Your task to perform on an android device: change timer sound Image 0: 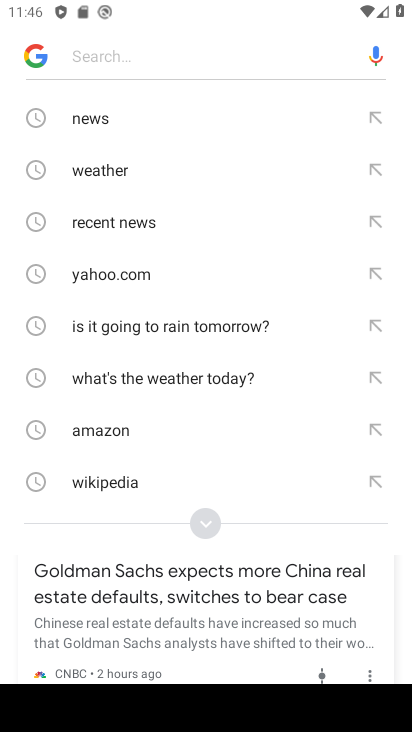
Step 0: press back button
Your task to perform on an android device: change timer sound Image 1: 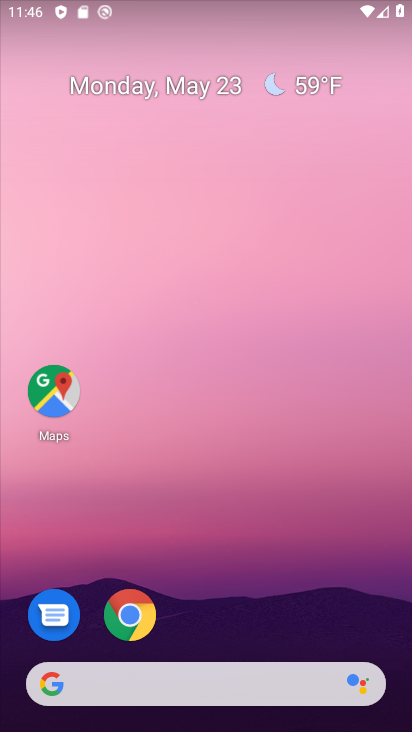
Step 1: drag from (205, 547) to (183, 21)
Your task to perform on an android device: change timer sound Image 2: 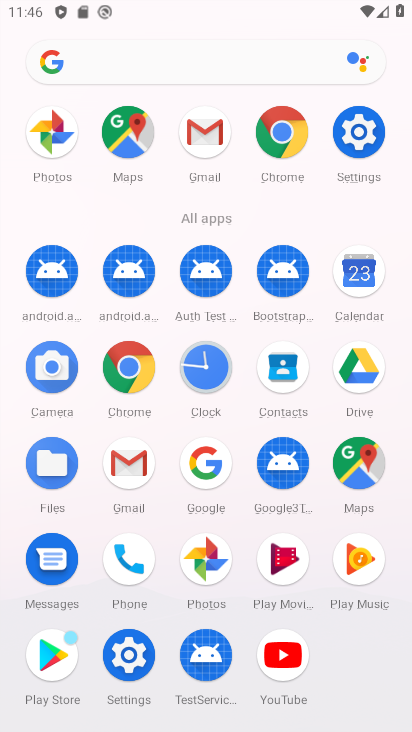
Step 2: drag from (8, 566) to (20, 221)
Your task to perform on an android device: change timer sound Image 3: 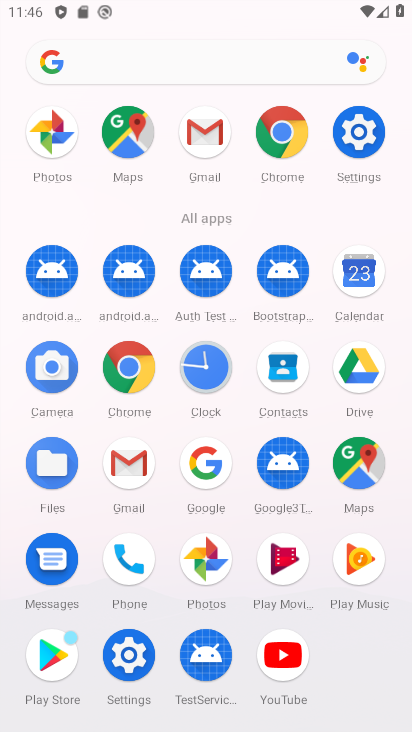
Step 3: click (205, 363)
Your task to perform on an android device: change timer sound Image 4: 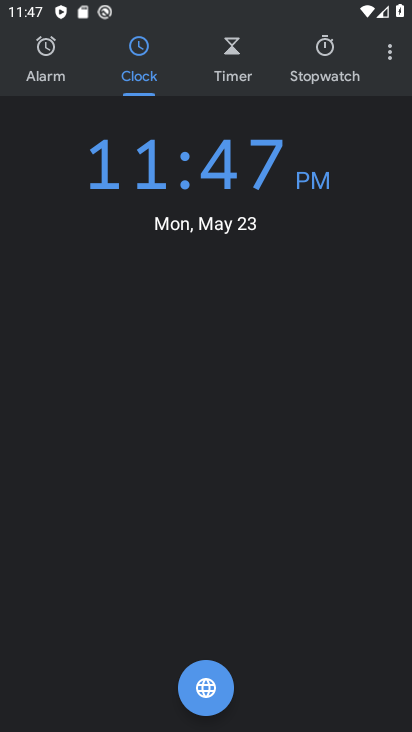
Step 4: drag from (389, 54) to (330, 112)
Your task to perform on an android device: change timer sound Image 5: 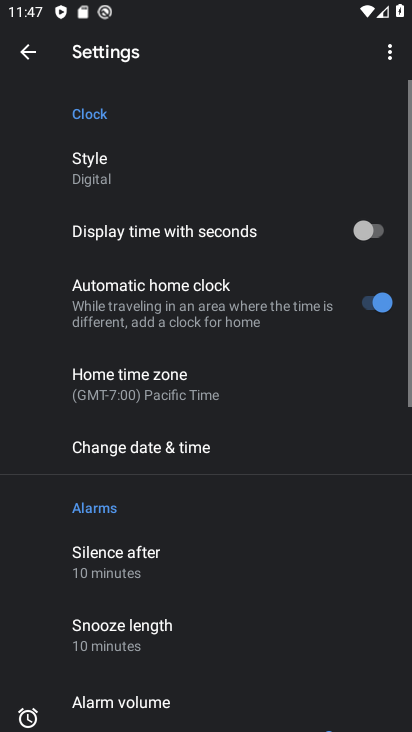
Step 5: drag from (196, 510) to (214, 147)
Your task to perform on an android device: change timer sound Image 6: 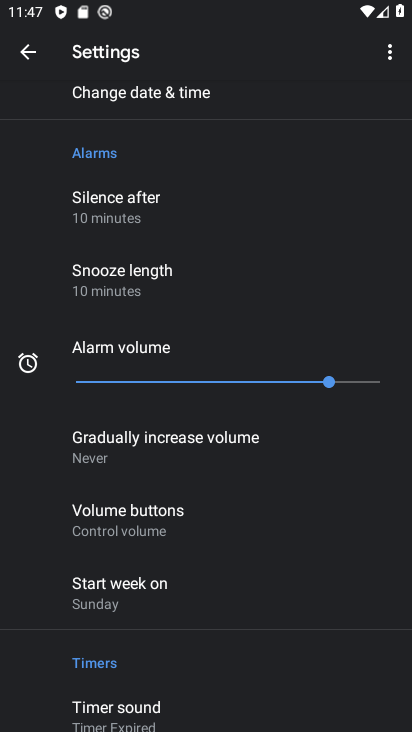
Step 6: drag from (227, 563) to (255, 140)
Your task to perform on an android device: change timer sound Image 7: 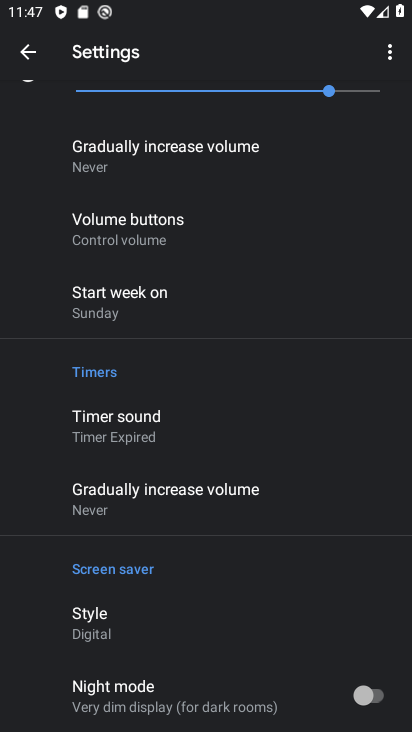
Step 7: click (162, 410)
Your task to perform on an android device: change timer sound Image 8: 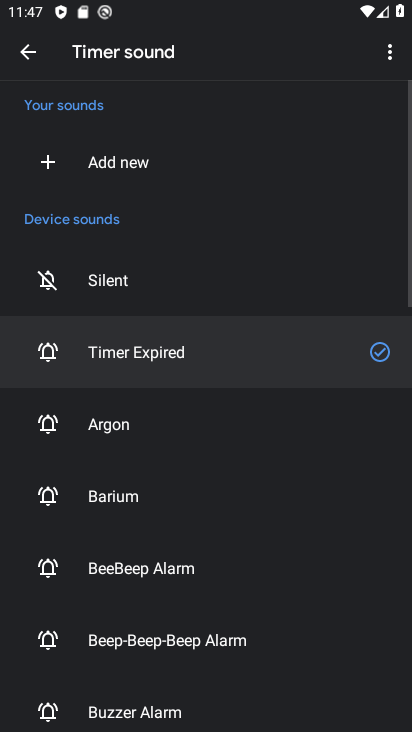
Step 8: click (130, 509)
Your task to perform on an android device: change timer sound Image 9: 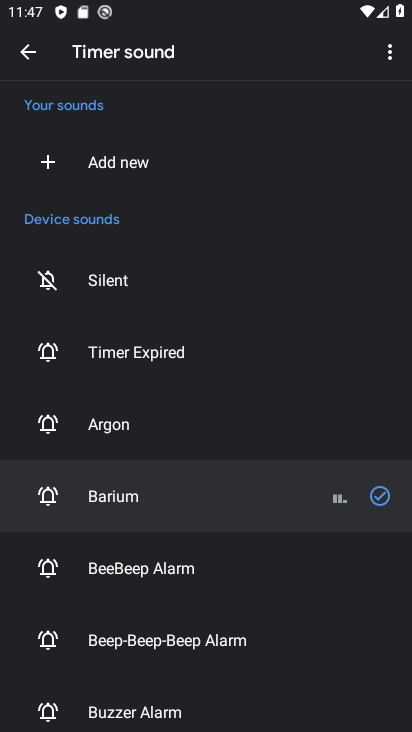
Step 9: task complete